Your task to perform on an android device: set the timer Image 0: 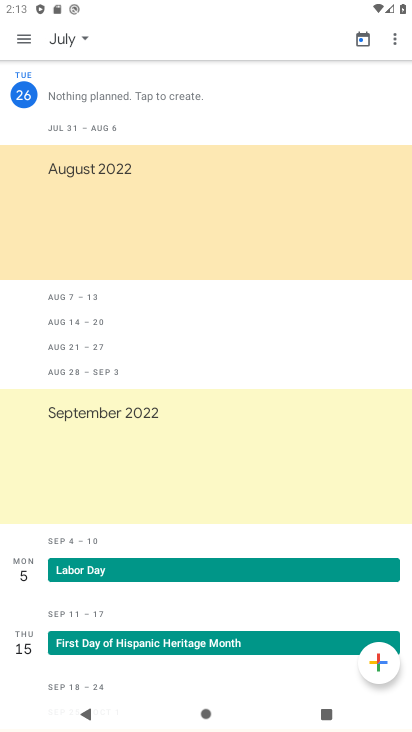
Step 0: press home button
Your task to perform on an android device: set the timer Image 1: 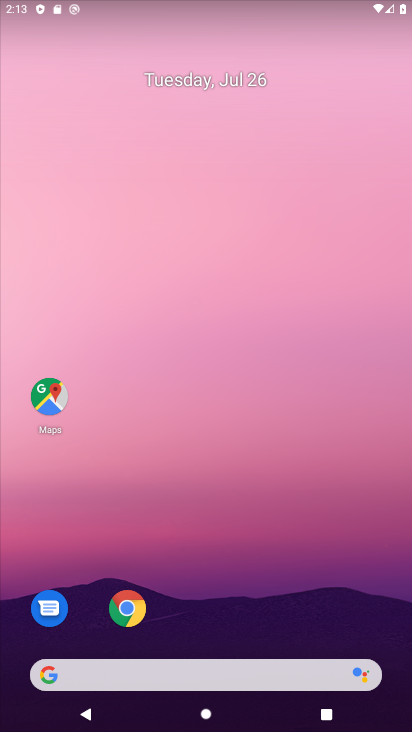
Step 1: drag from (272, 573) to (292, 86)
Your task to perform on an android device: set the timer Image 2: 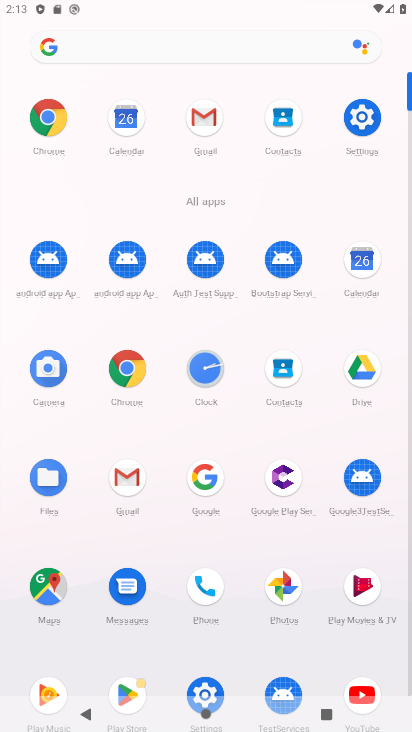
Step 2: click (201, 369)
Your task to perform on an android device: set the timer Image 3: 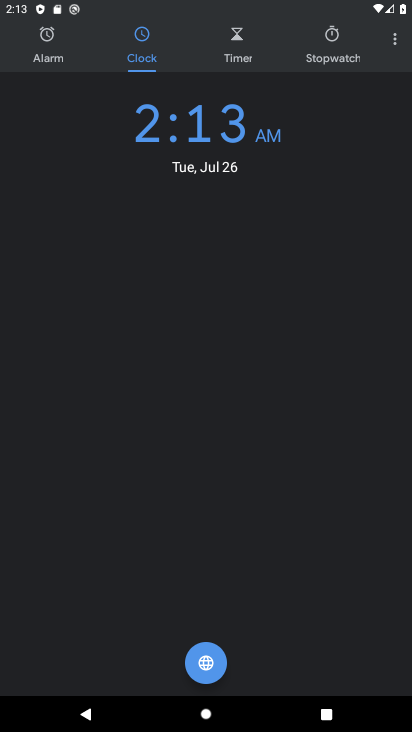
Step 3: click (235, 38)
Your task to perform on an android device: set the timer Image 4: 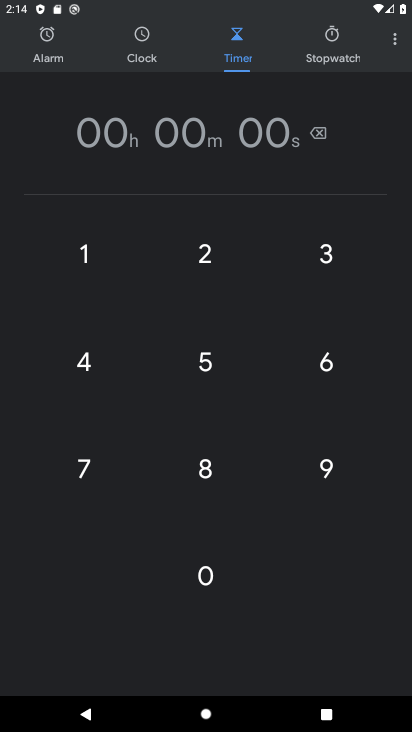
Step 4: task complete